Your task to perform on an android device: turn off location history Image 0: 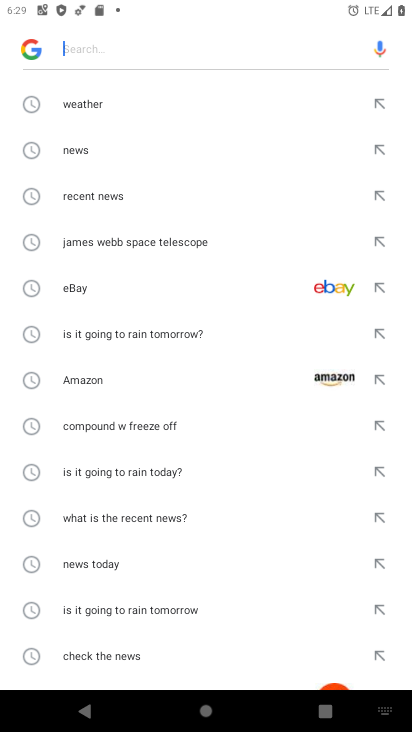
Step 0: press home button
Your task to perform on an android device: turn off location history Image 1: 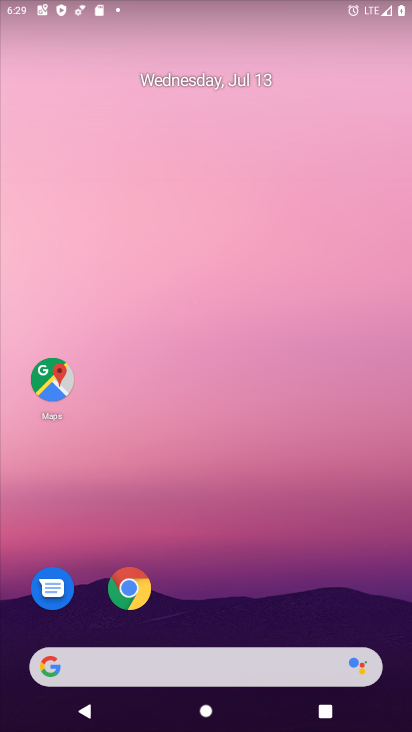
Step 1: drag from (185, 619) to (130, 118)
Your task to perform on an android device: turn off location history Image 2: 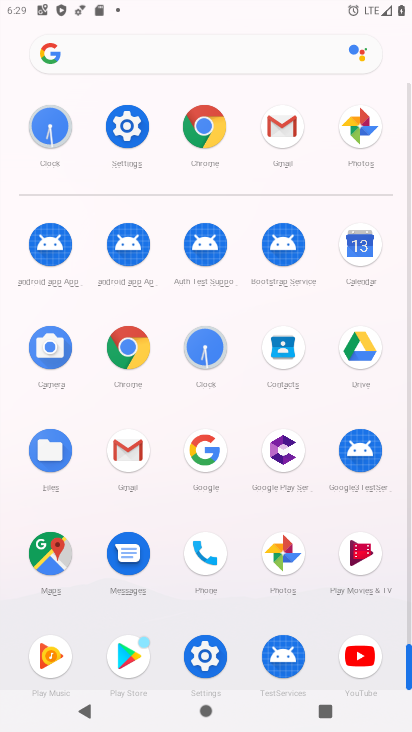
Step 2: click (127, 129)
Your task to perform on an android device: turn off location history Image 3: 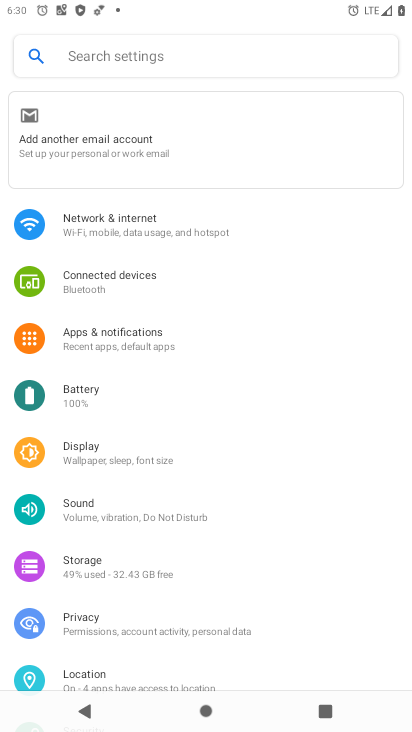
Step 3: click (93, 684)
Your task to perform on an android device: turn off location history Image 4: 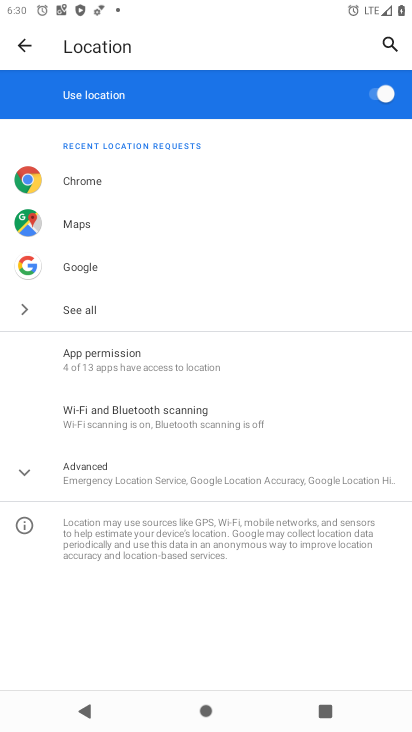
Step 4: click (142, 475)
Your task to perform on an android device: turn off location history Image 5: 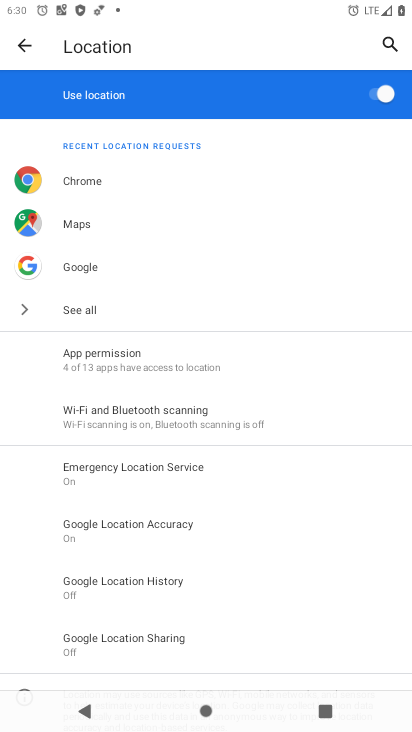
Step 5: click (125, 587)
Your task to perform on an android device: turn off location history Image 6: 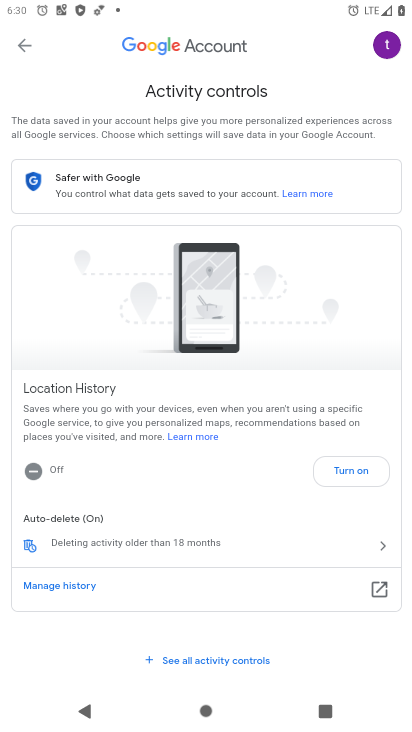
Step 6: task complete